Your task to perform on an android device: turn on airplane mode Image 0: 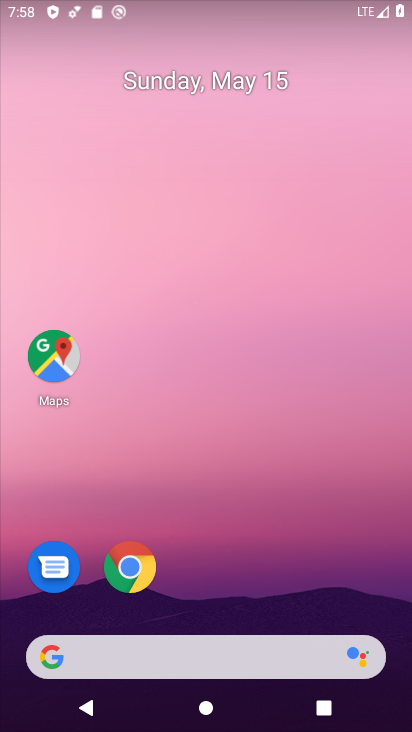
Step 0: drag from (350, 42) to (278, 607)
Your task to perform on an android device: turn on airplane mode Image 1: 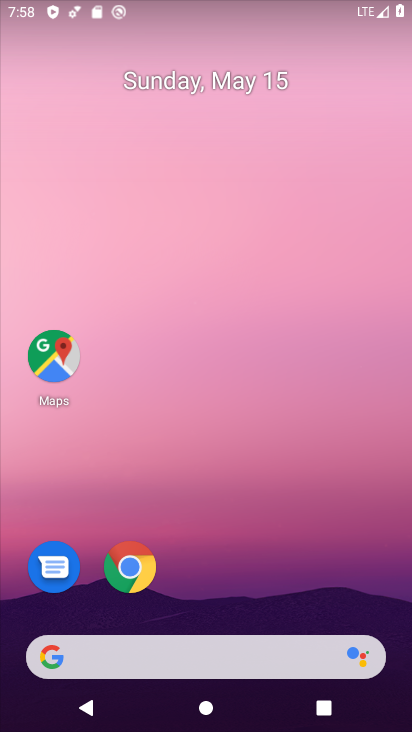
Step 1: drag from (365, 9) to (337, 539)
Your task to perform on an android device: turn on airplane mode Image 2: 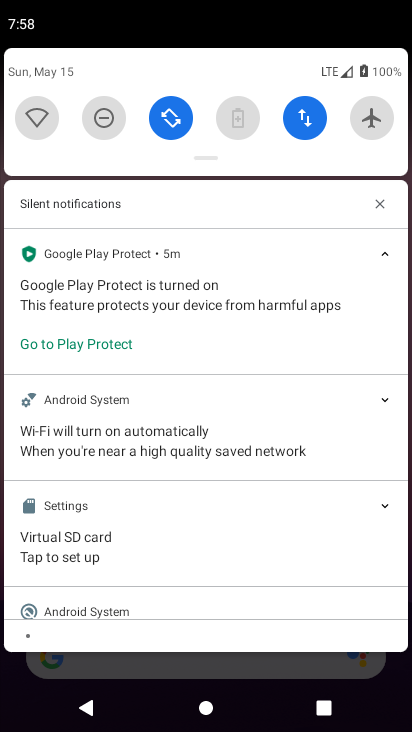
Step 2: click (371, 119)
Your task to perform on an android device: turn on airplane mode Image 3: 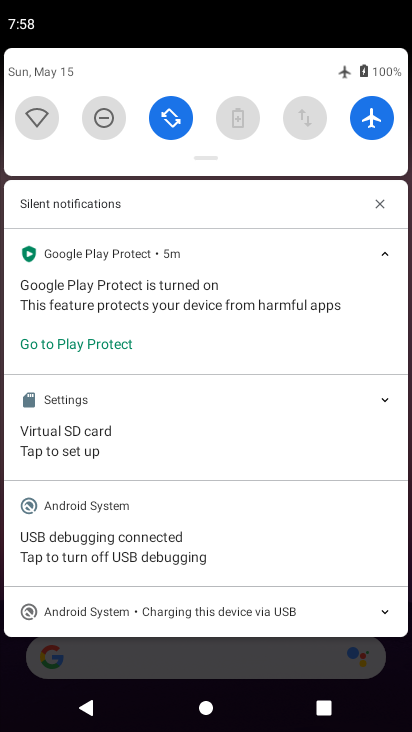
Step 3: task complete